Your task to perform on an android device: Search for apple airpods on bestbuy.com, select the first entry, add it to the cart, then select checkout. Image 0: 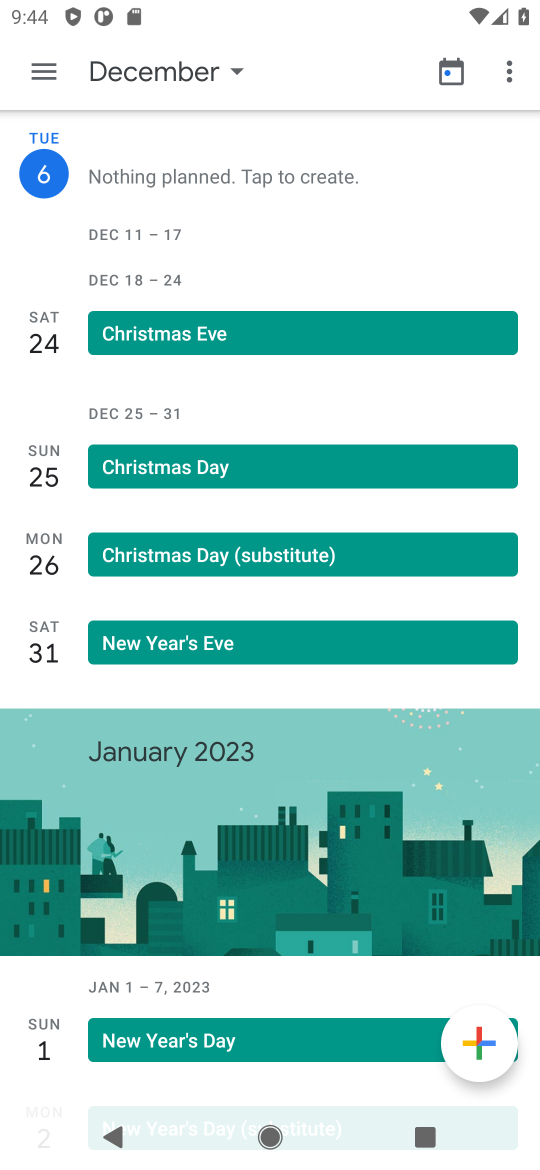
Step 0: press home button
Your task to perform on an android device: Search for apple airpods on bestbuy.com, select the first entry, add it to the cart, then select checkout. Image 1: 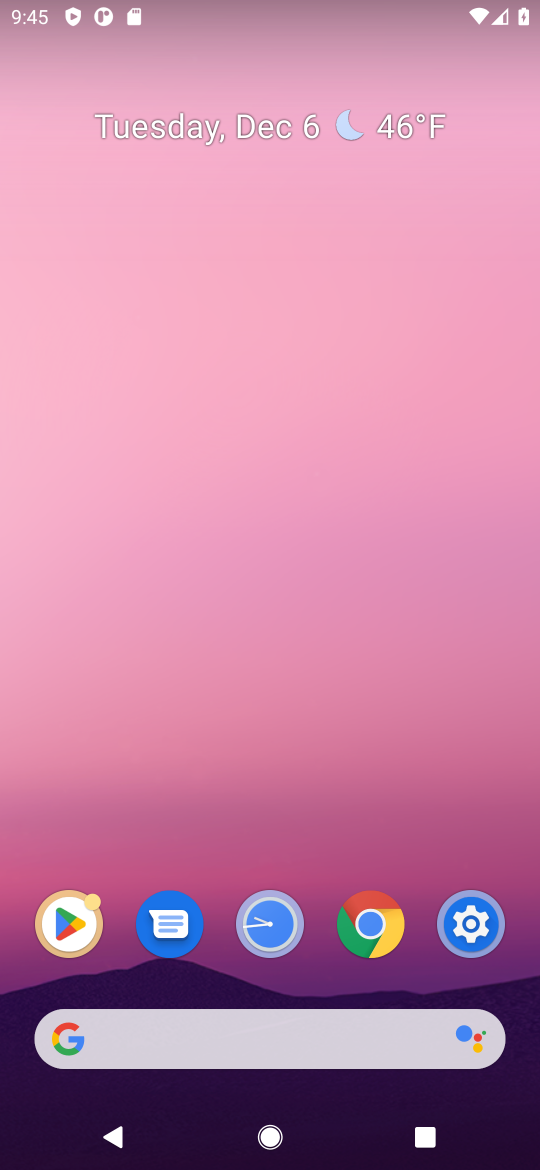
Step 1: click (277, 1022)
Your task to perform on an android device: Search for apple airpods on bestbuy.com, select the first entry, add it to the cart, then select checkout. Image 2: 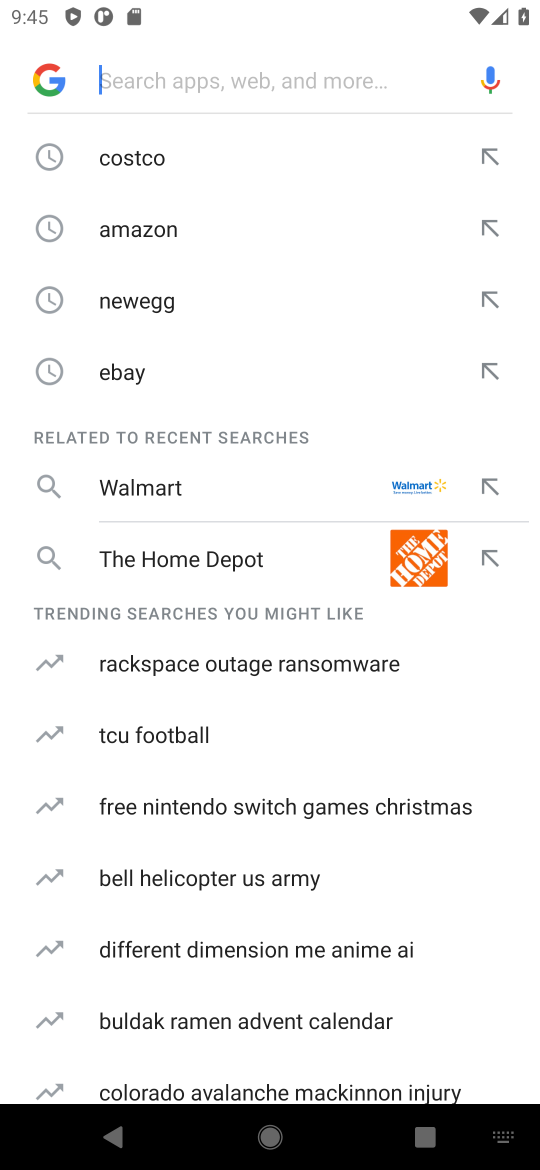
Step 2: click (272, 169)
Your task to perform on an android device: Search for apple airpods on bestbuy.com, select the first entry, add it to the cart, then select checkout. Image 3: 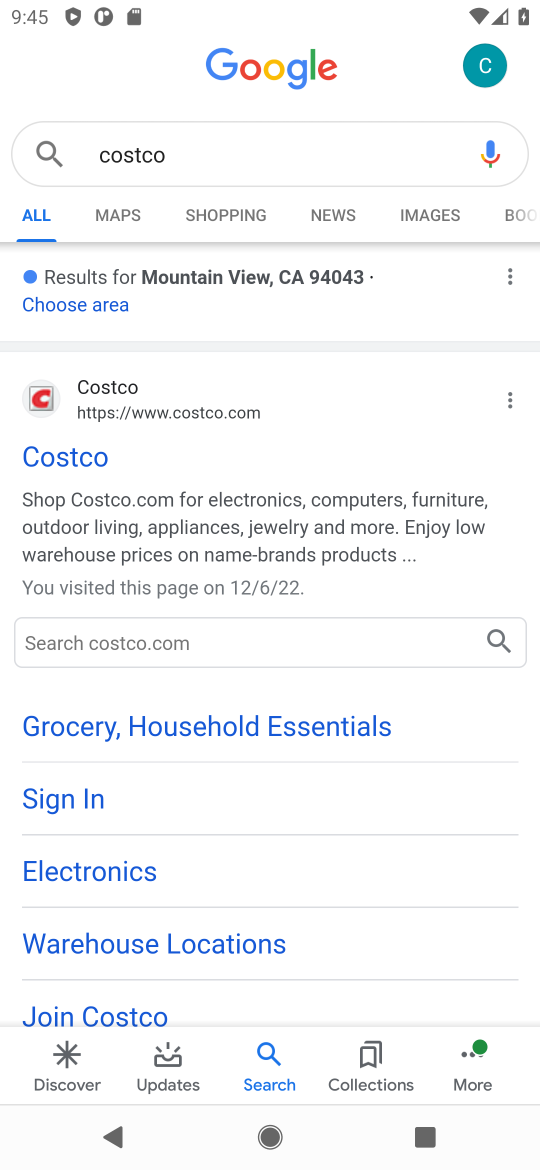
Step 3: click (104, 459)
Your task to perform on an android device: Search for apple airpods on bestbuy.com, select the first entry, add it to the cart, then select checkout. Image 4: 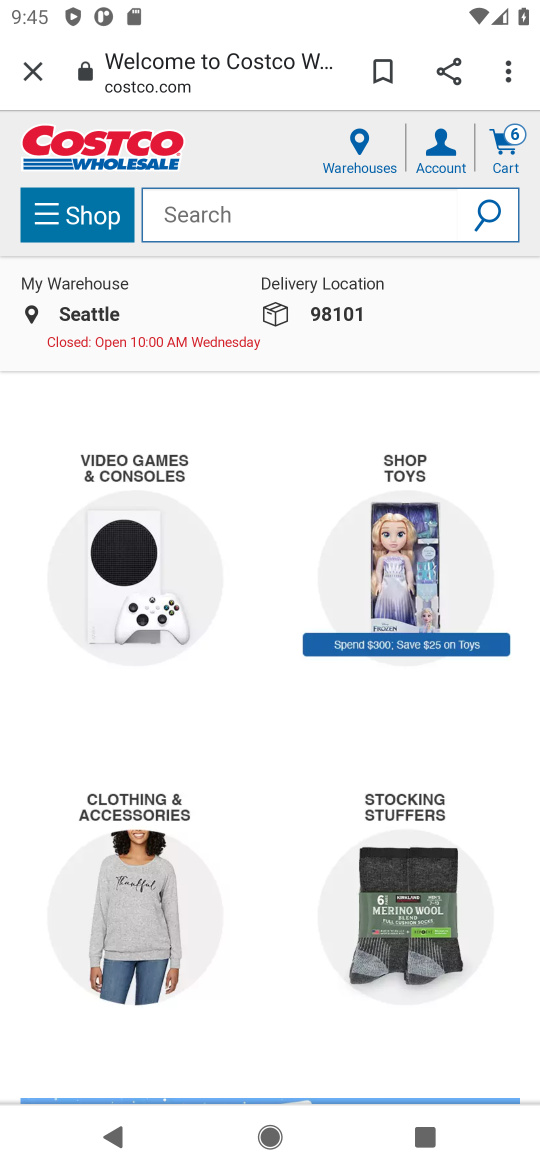
Step 4: task complete